Your task to perform on an android device: Open the calendar app, open the side menu, and click the "Day" option Image 0: 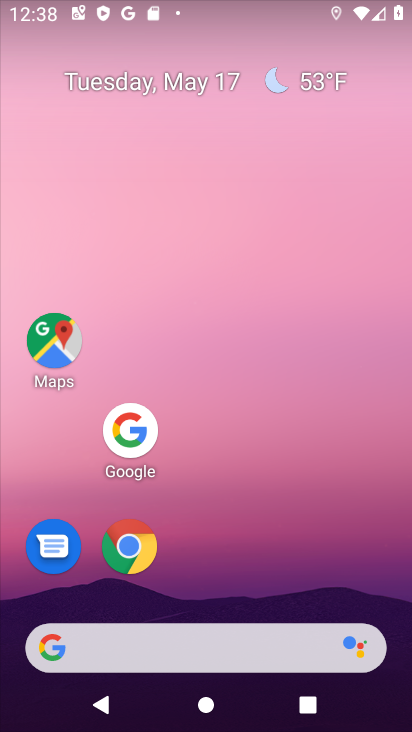
Step 0: drag from (211, 522) to (206, 125)
Your task to perform on an android device: Open the calendar app, open the side menu, and click the "Day" option Image 1: 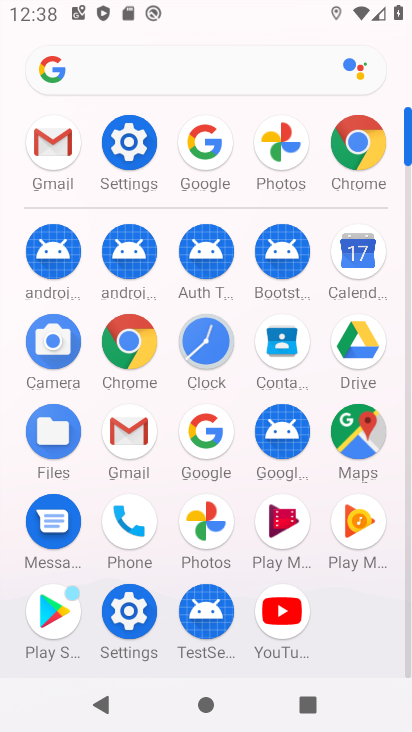
Step 1: click (358, 254)
Your task to perform on an android device: Open the calendar app, open the side menu, and click the "Day" option Image 2: 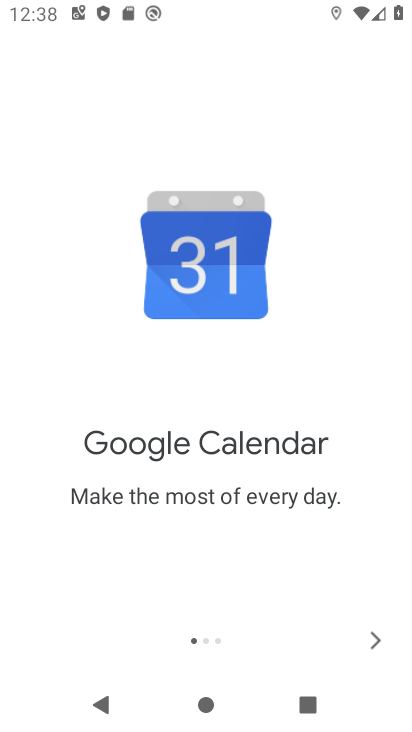
Step 2: click (370, 632)
Your task to perform on an android device: Open the calendar app, open the side menu, and click the "Day" option Image 3: 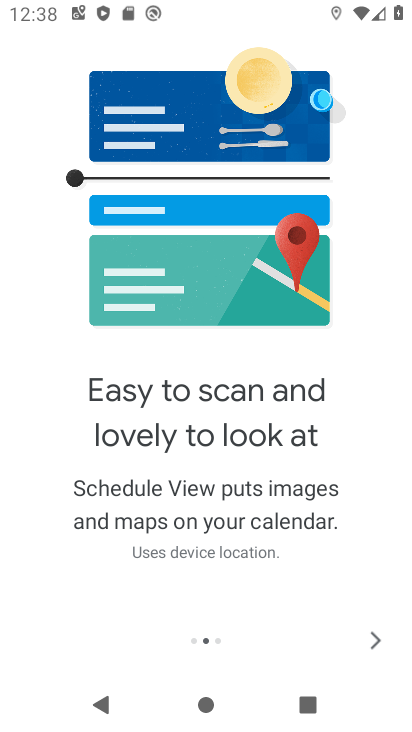
Step 3: click (370, 632)
Your task to perform on an android device: Open the calendar app, open the side menu, and click the "Day" option Image 4: 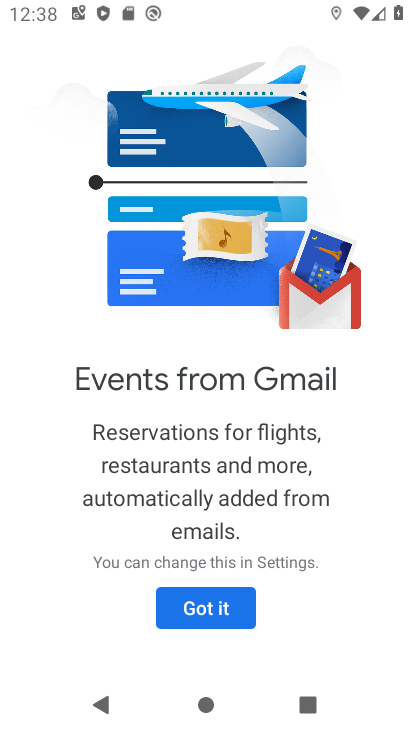
Step 4: click (219, 612)
Your task to perform on an android device: Open the calendar app, open the side menu, and click the "Day" option Image 5: 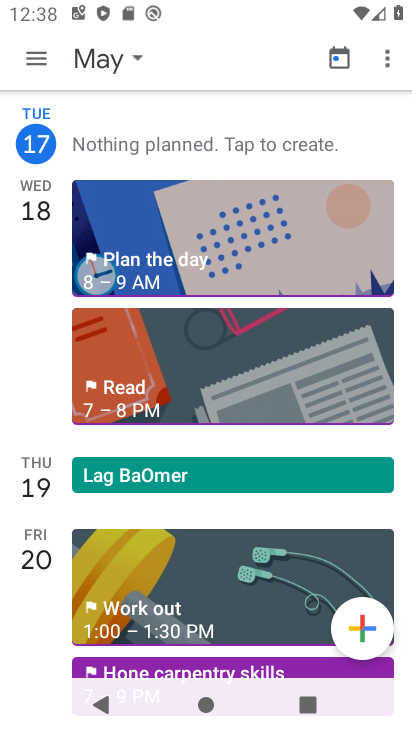
Step 5: click (132, 58)
Your task to perform on an android device: Open the calendar app, open the side menu, and click the "Day" option Image 6: 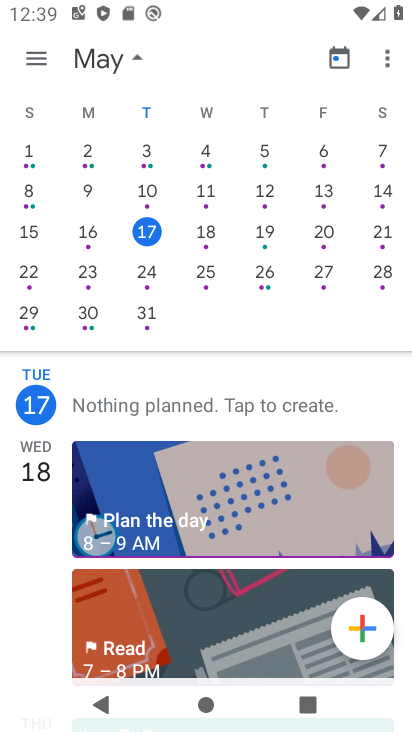
Step 6: click (49, 61)
Your task to perform on an android device: Open the calendar app, open the side menu, and click the "Day" option Image 7: 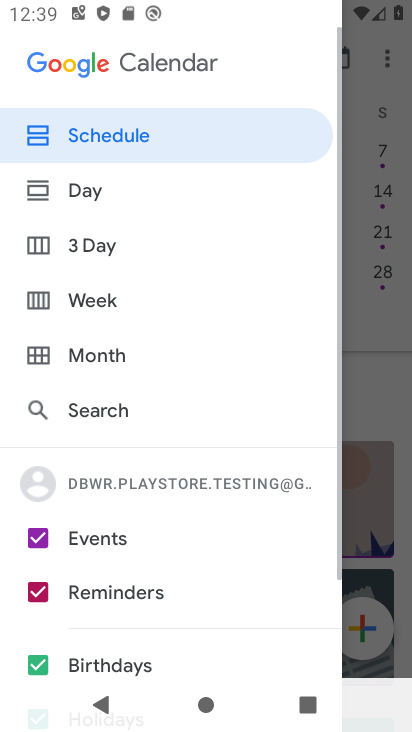
Step 7: click (100, 192)
Your task to perform on an android device: Open the calendar app, open the side menu, and click the "Day" option Image 8: 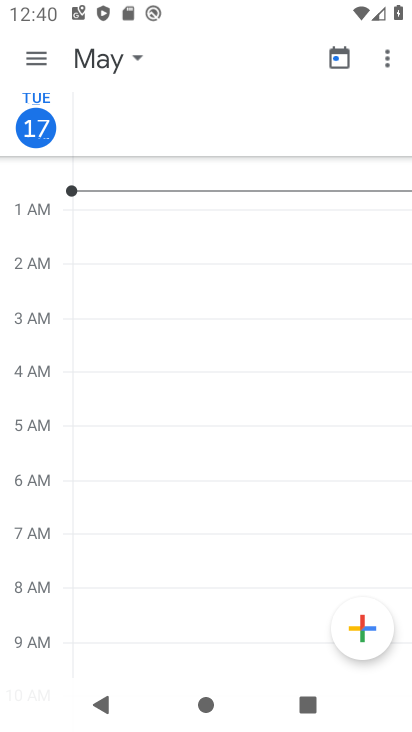
Step 8: task complete